Your task to perform on an android device: stop showing notifications on the lock screen Image 0: 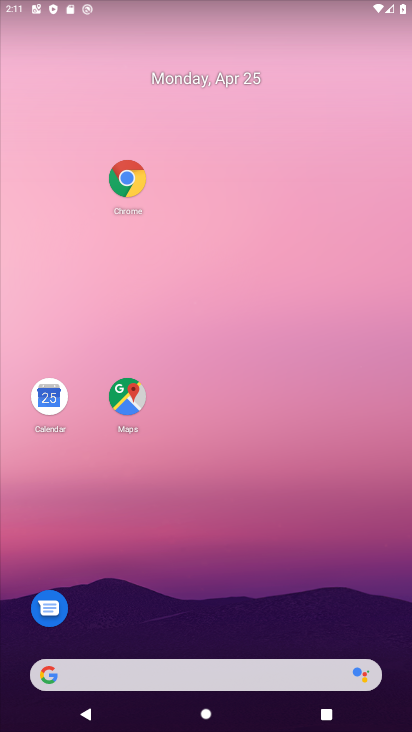
Step 0: press home button
Your task to perform on an android device: stop showing notifications on the lock screen Image 1: 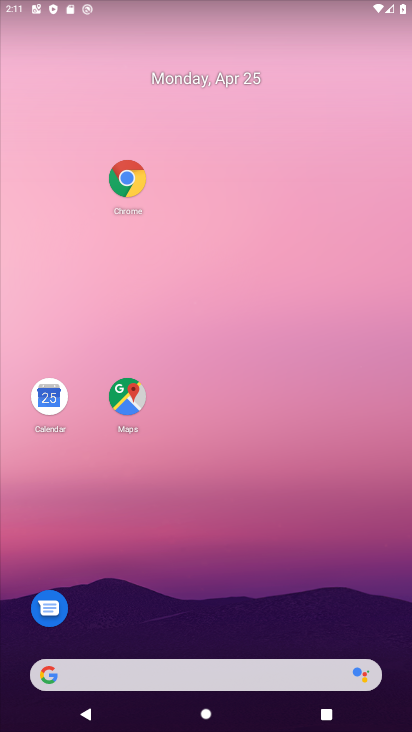
Step 1: drag from (190, 597) to (196, 159)
Your task to perform on an android device: stop showing notifications on the lock screen Image 2: 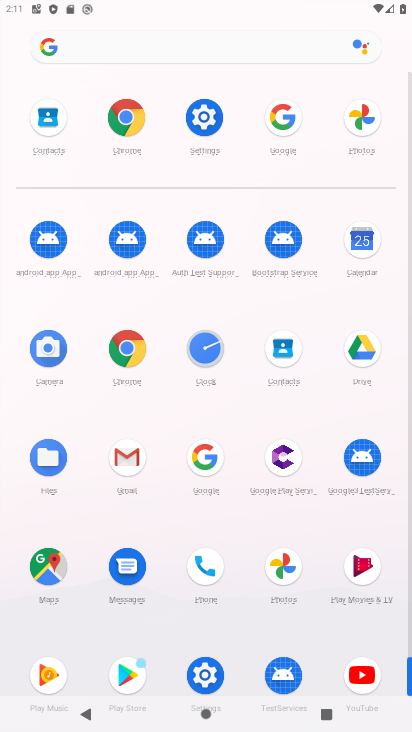
Step 2: click (193, 664)
Your task to perform on an android device: stop showing notifications on the lock screen Image 3: 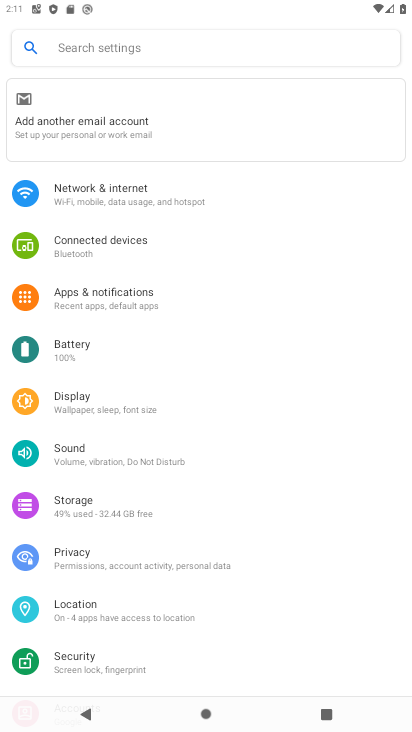
Step 3: click (138, 304)
Your task to perform on an android device: stop showing notifications on the lock screen Image 4: 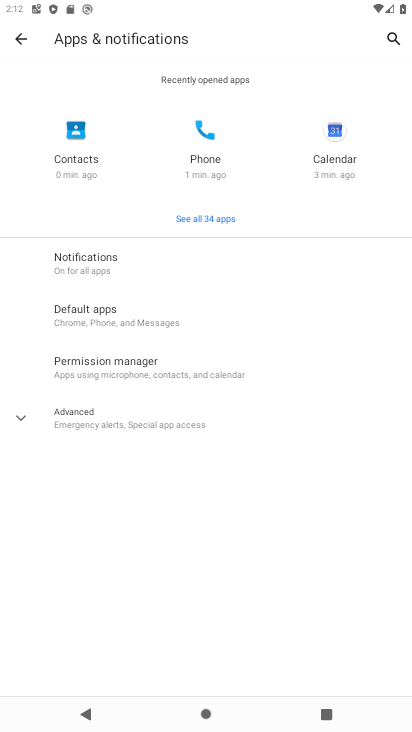
Step 4: click (103, 273)
Your task to perform on an android device: stop showing notifications on the lock screen Image 5: 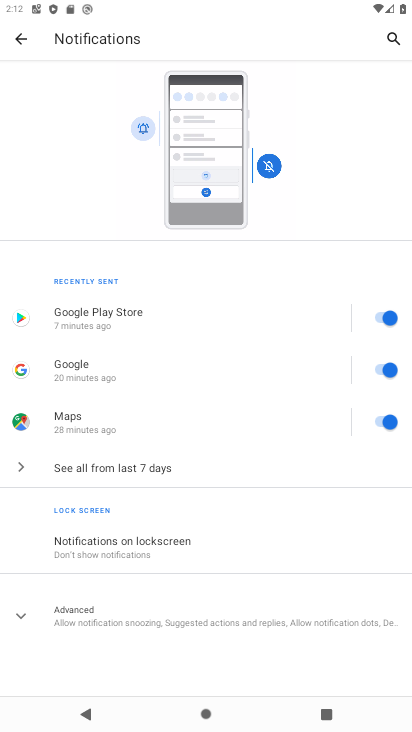
Step 5: click (150, 541)
Your task to perform on an android device: stop showing notifications on the lock screen Image 6: 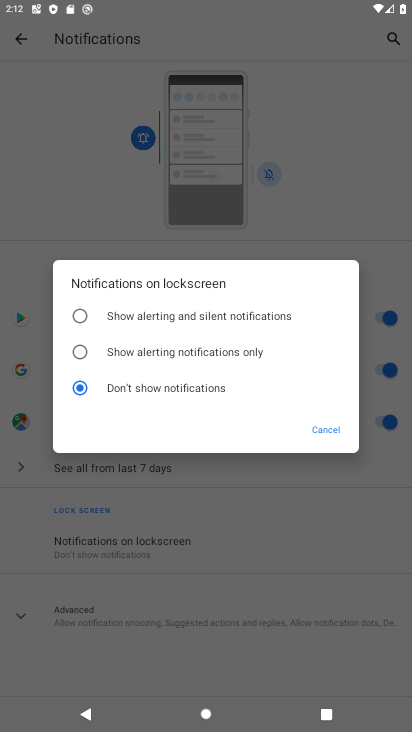
Step 6: task complete